Your task to perform on an android device: Clear all items from cart on bestbuy. Search for lg ultragear on bestbuy, select the first entry, and add it to the cart. Image 0: 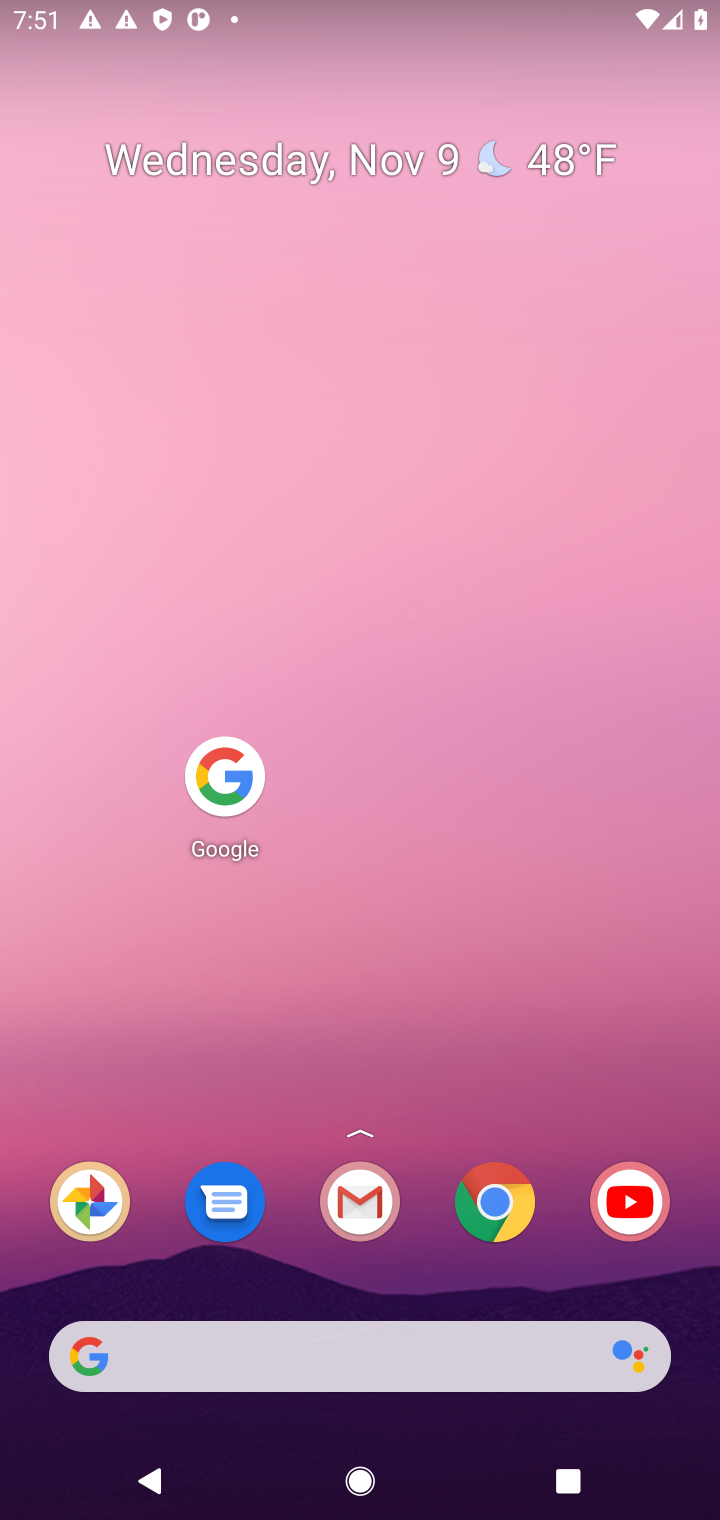
Step 0: press home button
Your task to perform on an android device: Clear all items from cart on bestbuy. Search for lg ultragear on bestbuy, select the first entry, and add it to the cart. Image 1: 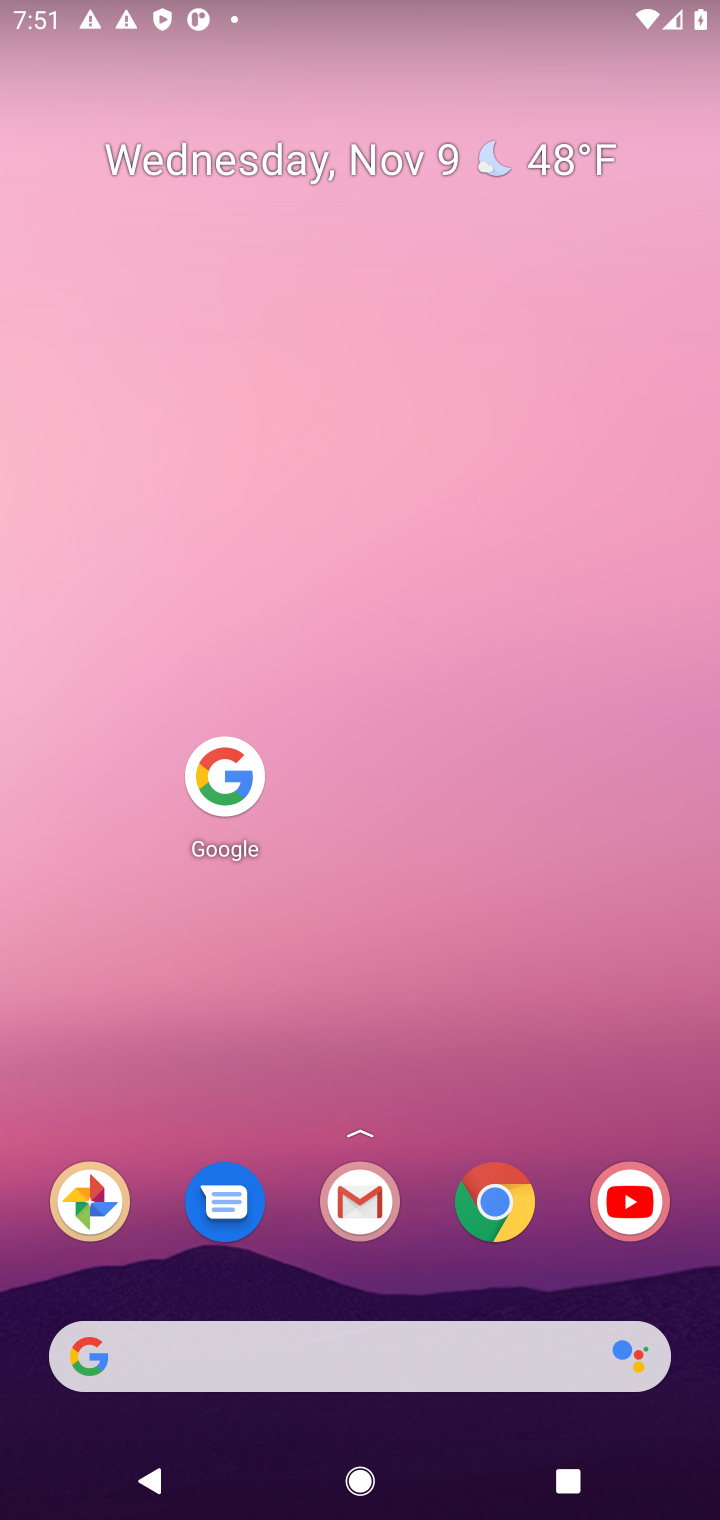
Step 1: click (233, 772)
Your task to perform on an android device: Clear all items from cart on bestbuy. Search for lg ultragear on bestbuy, select the first entry, and add it to the cart. Image 2: 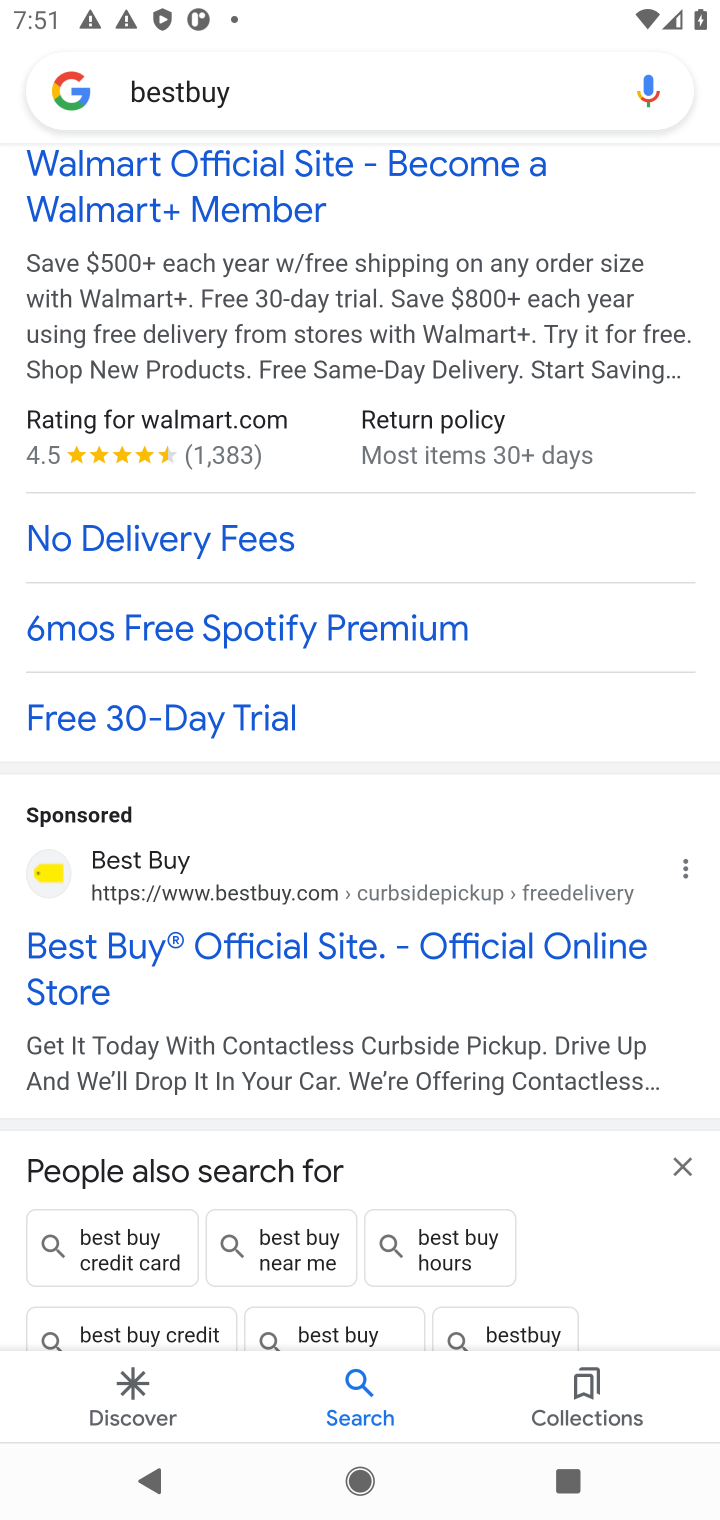
Step 2: click (236, 937)
Your task to perform on an android device: Clear all items from cart on bestbuy. Search for lg ultragear on bestbuy, select the first entry, and add it to the cart. Image 3: 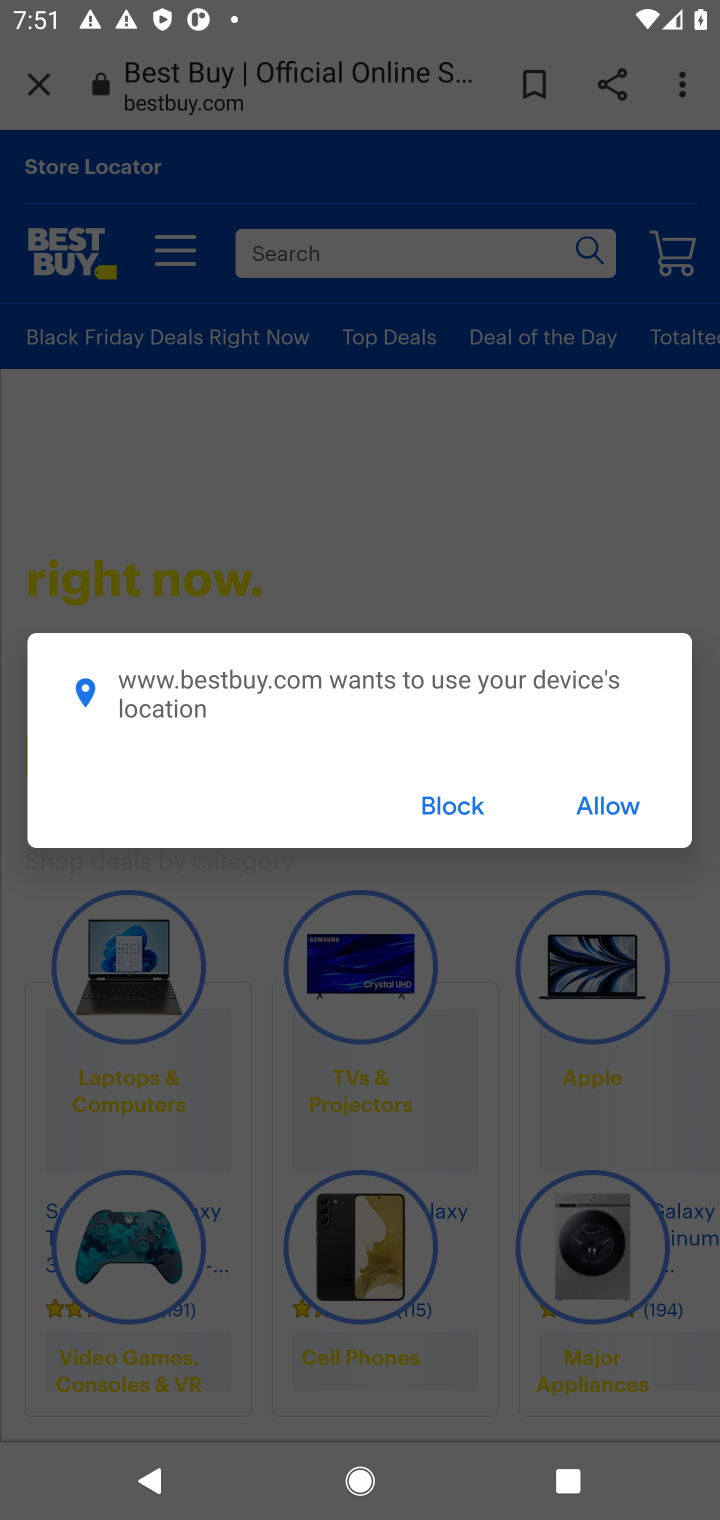
Step 3: click (607, 801)
Your task to perform on an android device: Clear all items from cart on bestbuy. Search for lg ultragear on bestbuy, select the first entry, and add it to the cart. Image 4: 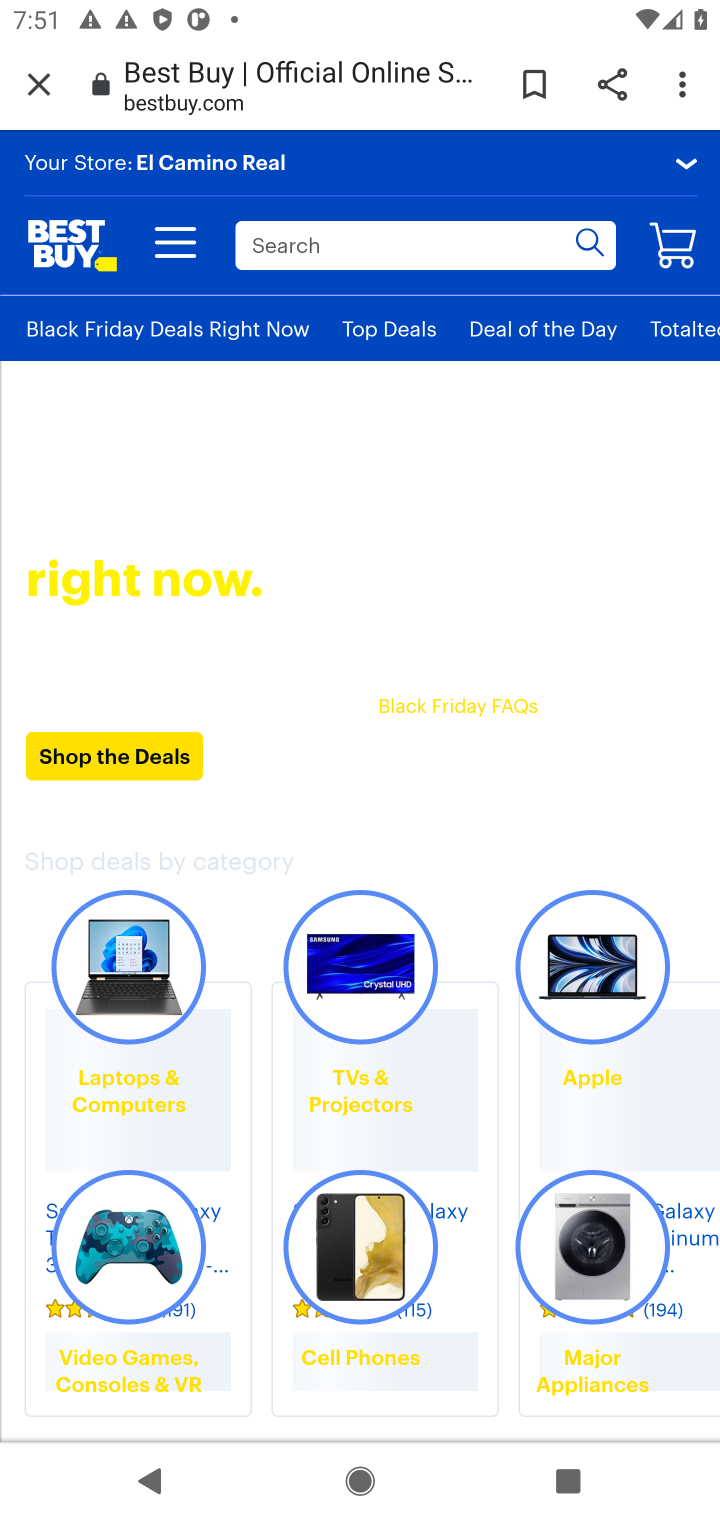
Step 4: click (436, 252)
Your task to perform on an android device: Clear all items from cart on bestbuy. Search for lg ultragear on bestbuy, select the first entry, and add it to the cart. Image 5: 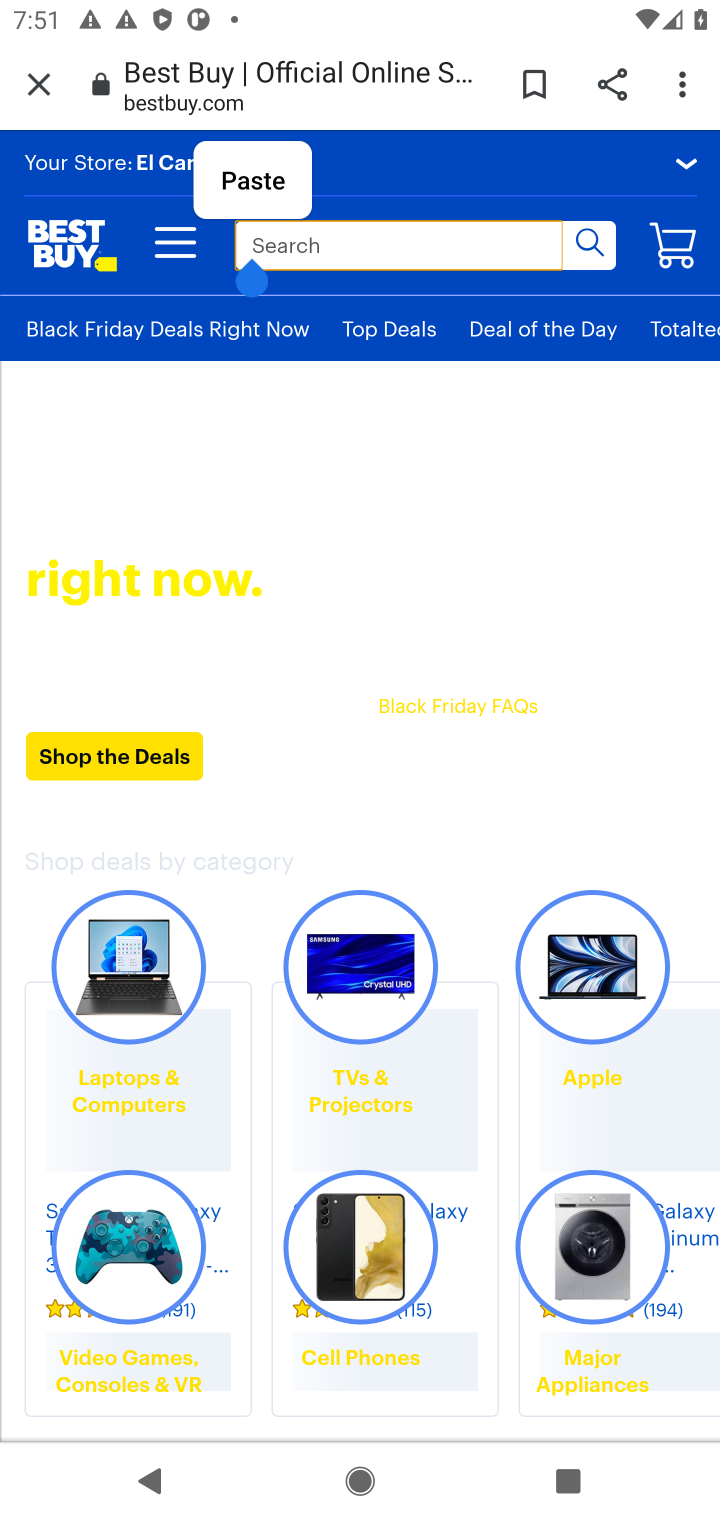
Step 5: click (421, 241)
Your task to perform on an android device: Clear all items from cart on bestbuy. Search for lg ultragear on bestbuy, select the first entry, and add it to the cart. Image 6: 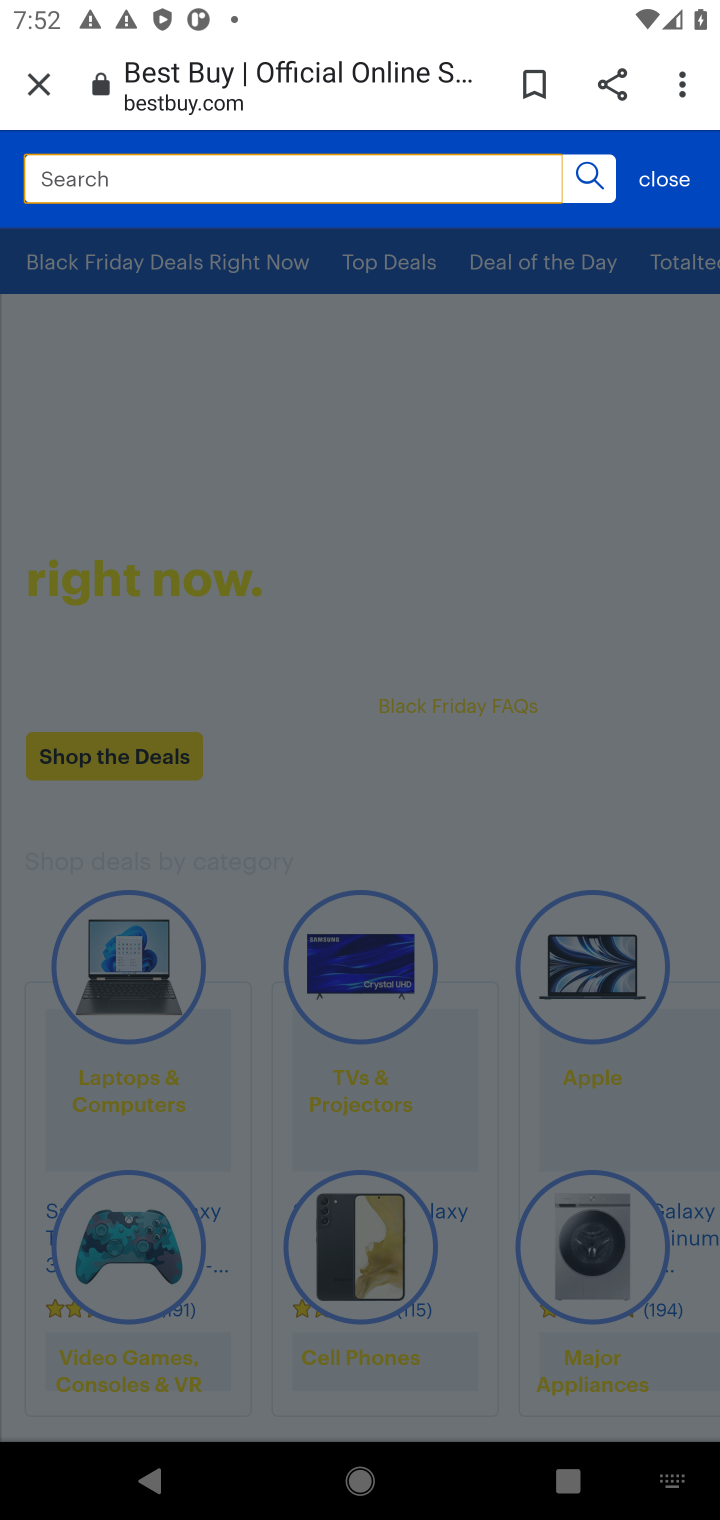
Step 6: press enter
Your task to perform on an android device: Clear all items from cart on bestbuy. Search for lg ultragear on bestbuy, select the first entry, and add it to the cart. Image 7: 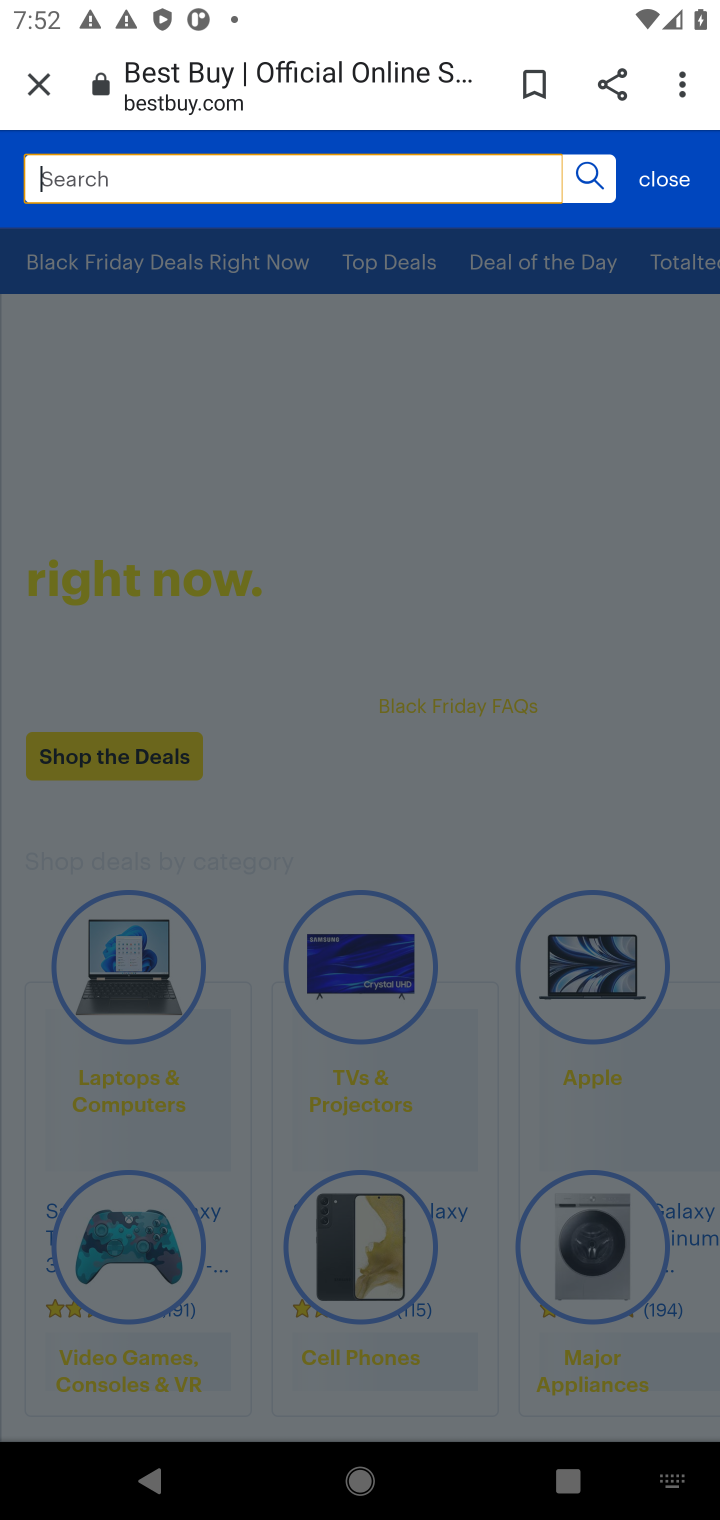
Step 7: type "lg ultragear "
Your task to perform on an android device: Clear all items from cart on bestbuy. Search for lg ultragear on bestbuy, select the first entry, and add it to the cart. Image 8: 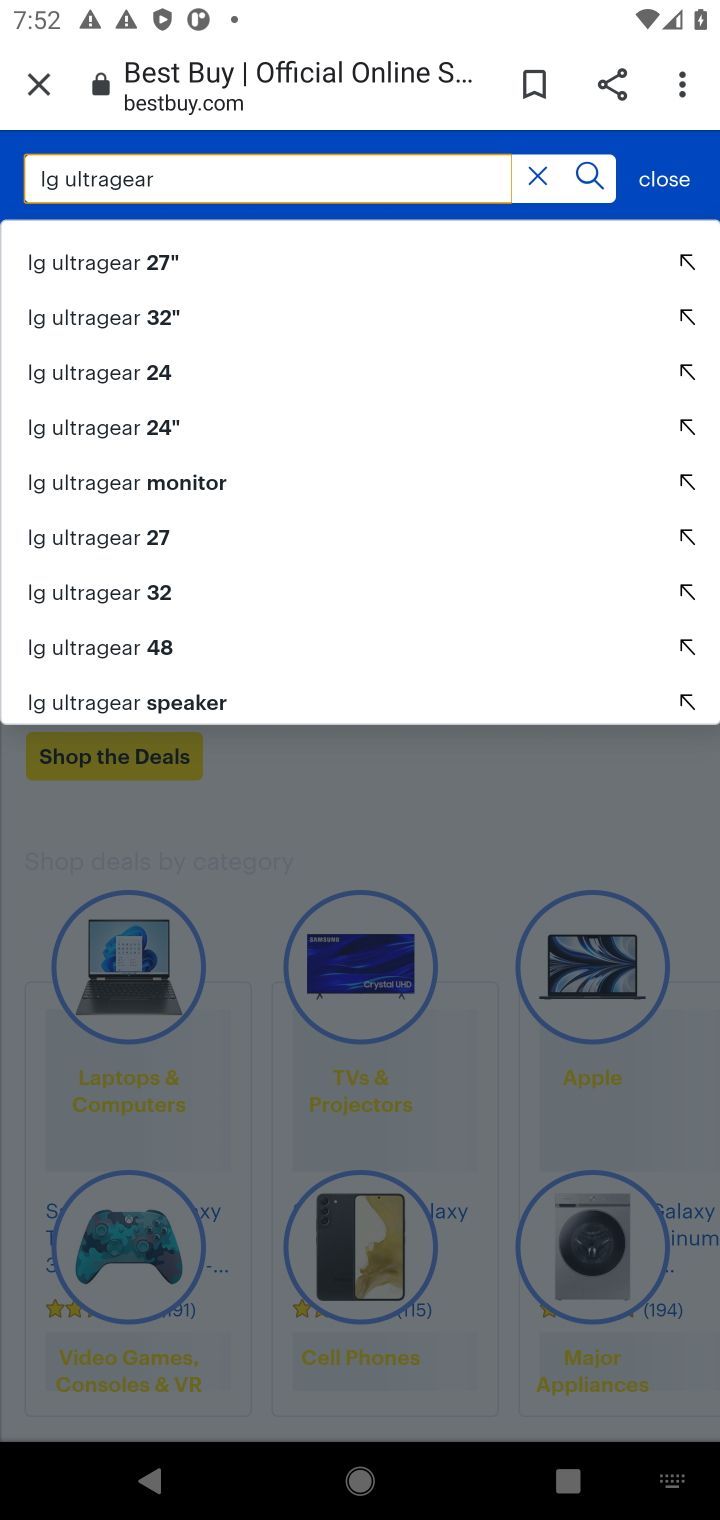
Step 8: click (590, 172)
Your task to perform on an android device: Clear all items from cart on bestbuy. Search for lg ultragear on bestbuy, select the first entry, and add it to the cart. Image 9: 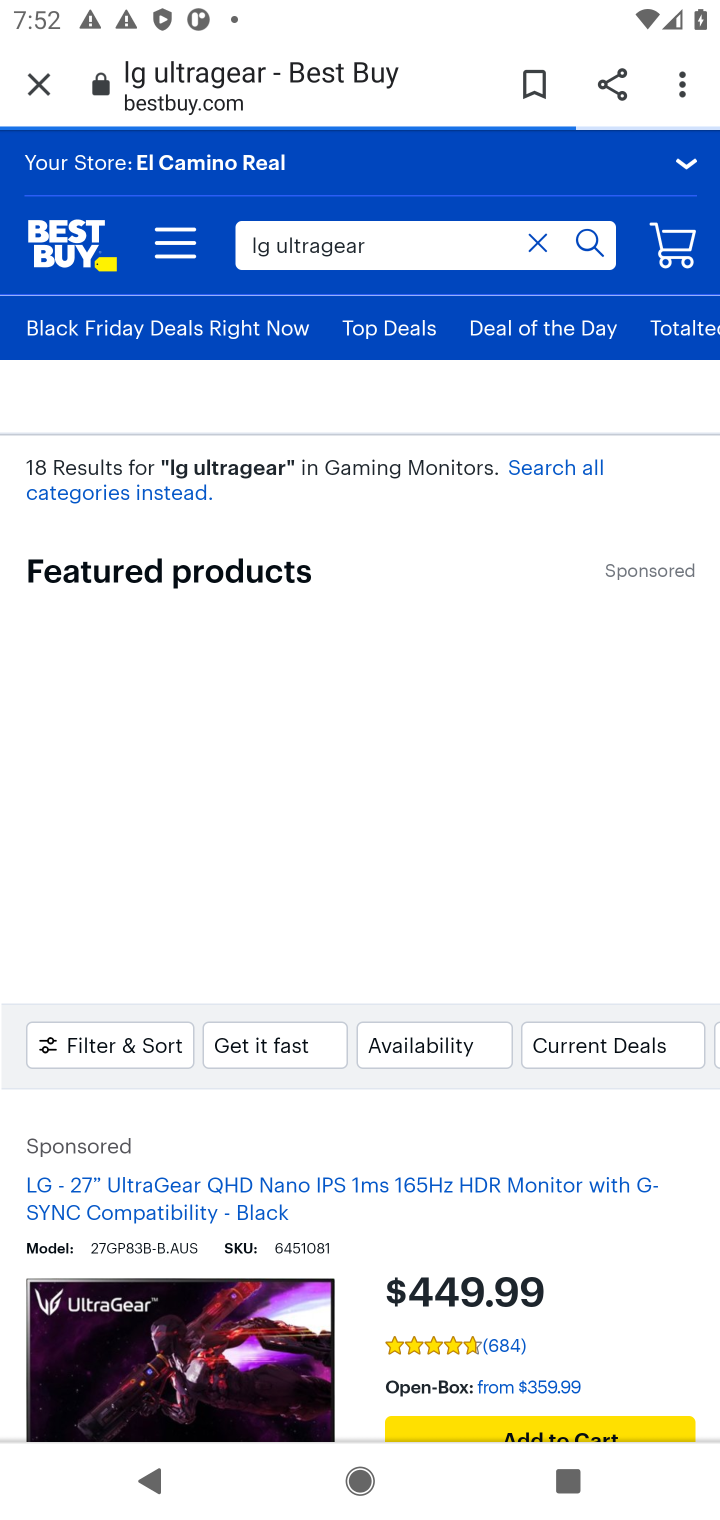
Step 9: drag from (371, 1212) to (437, 968)
Your task to perform on an android device: Clear all items from cart on bestbuy. Search for lg ultragear on bestbuy, select the first entry, and add it to the cart. Image 10: 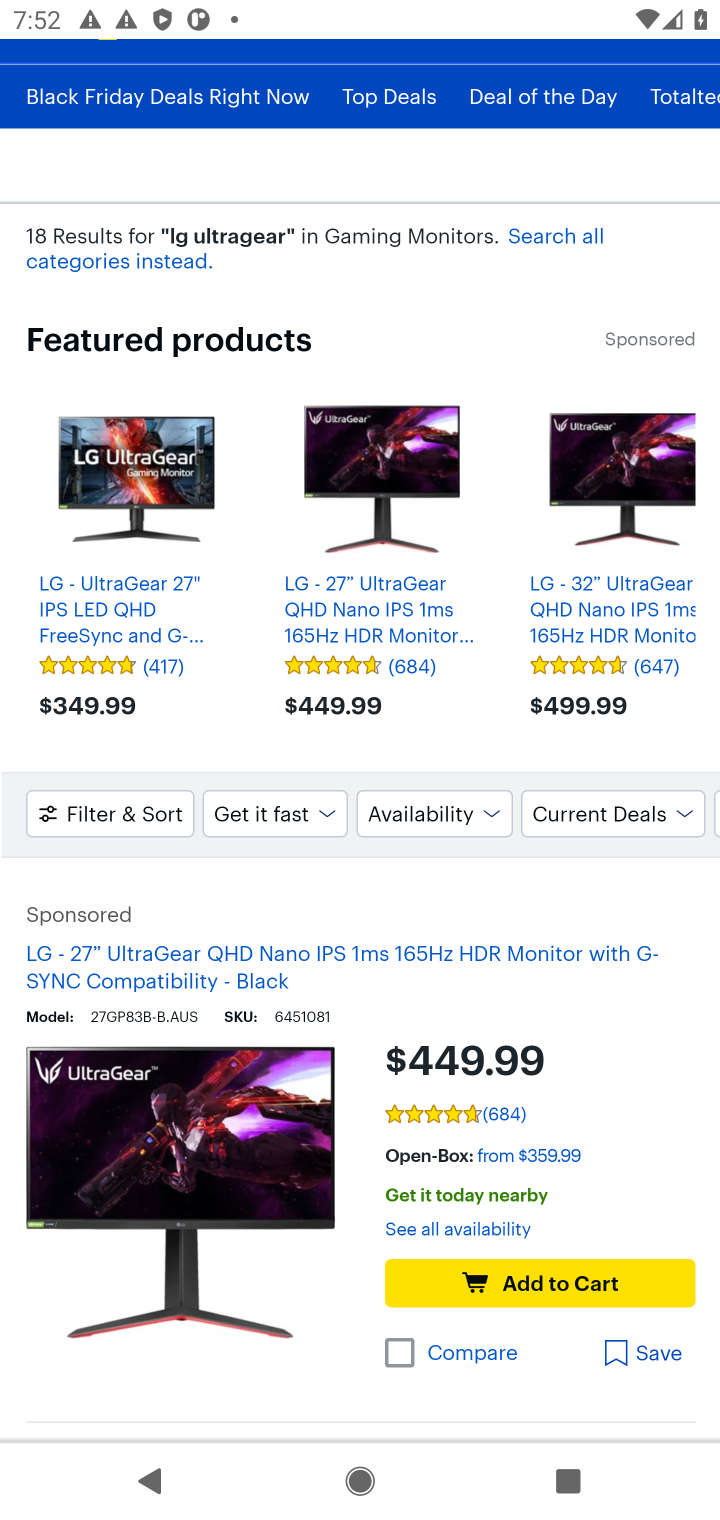
Step 10: click (515, 1168)
Your task to perform on an android device: Clear all items from cart on bestbuy. Search for lg ultragear on bestbuy, select the first entry, and add it to the cart. Image 11: 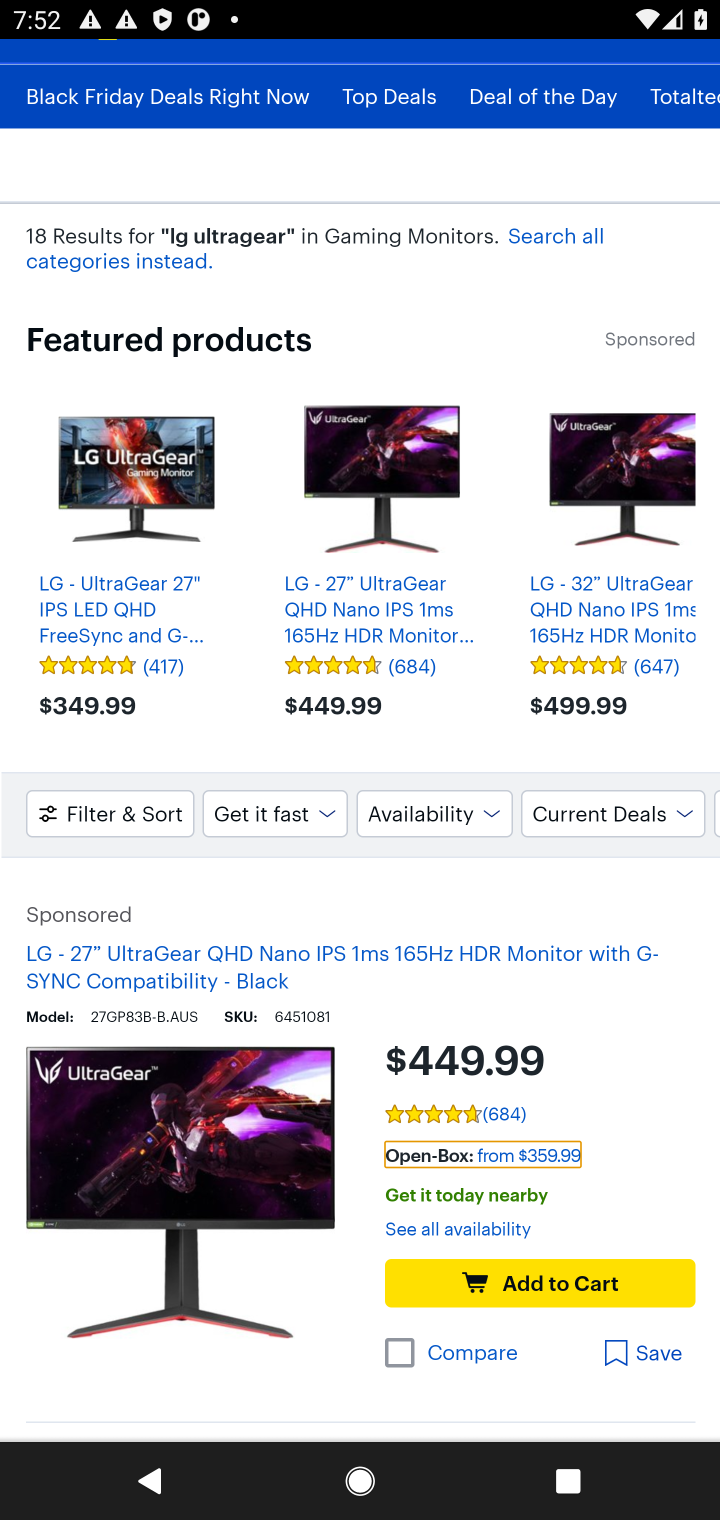
Step 11: click (594, 1095)
Your task to perform on an android device: Clear all items from cart on bestbuy. Search for lg ultragear on bestbuy, select the first entry, and add it to the cart. Image 12: 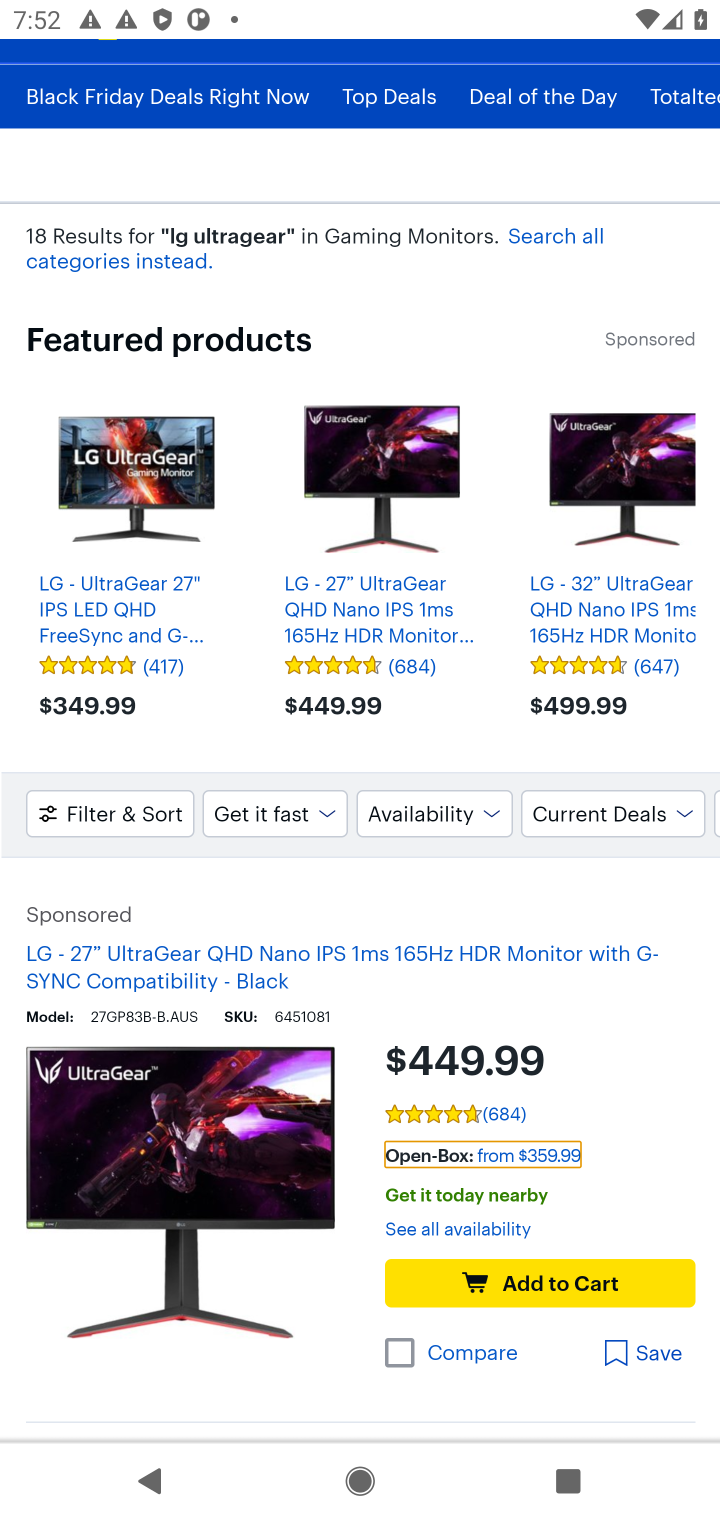
Step 12: click (512, 1070)
Your task to perform on an android device: Clear all items from cart on bestbuy. Search for lg ultragear on bestbuy, select the first entry, and add it to the cart. Image 13: 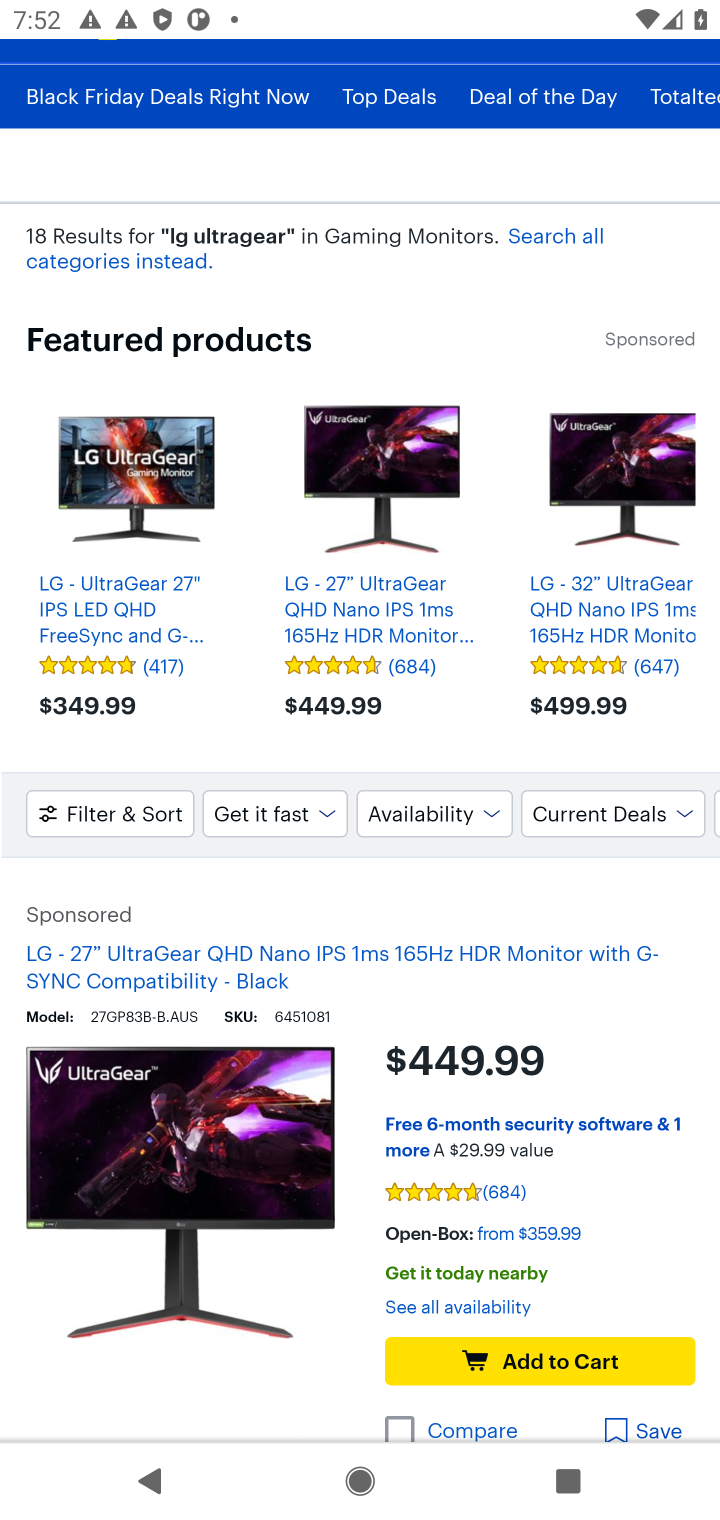
Step 13: drag from (373, 1178) to (524, 818)
Your task to perform on an android device: Clear all items from cart on bestbuy. Search for lg ultragear on bestbuy, select the first entry, and add it to the cart. Image 14: 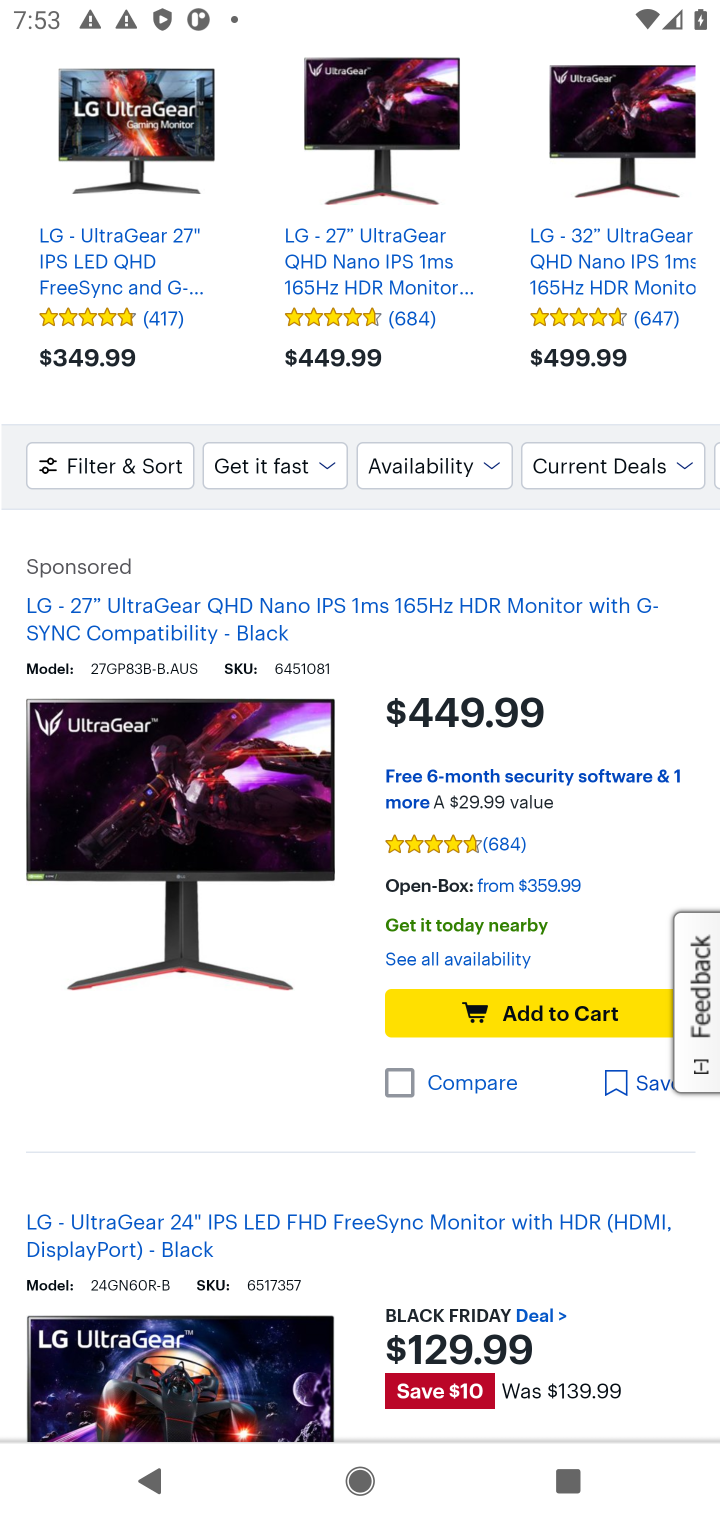
Step 14: click (558, 1009)
Your task to perform on an android device: Clear all items from cart on bestbuy. Search for lg ultragear on bestbuy, select the first entry, and add it to the cart. Image 15: 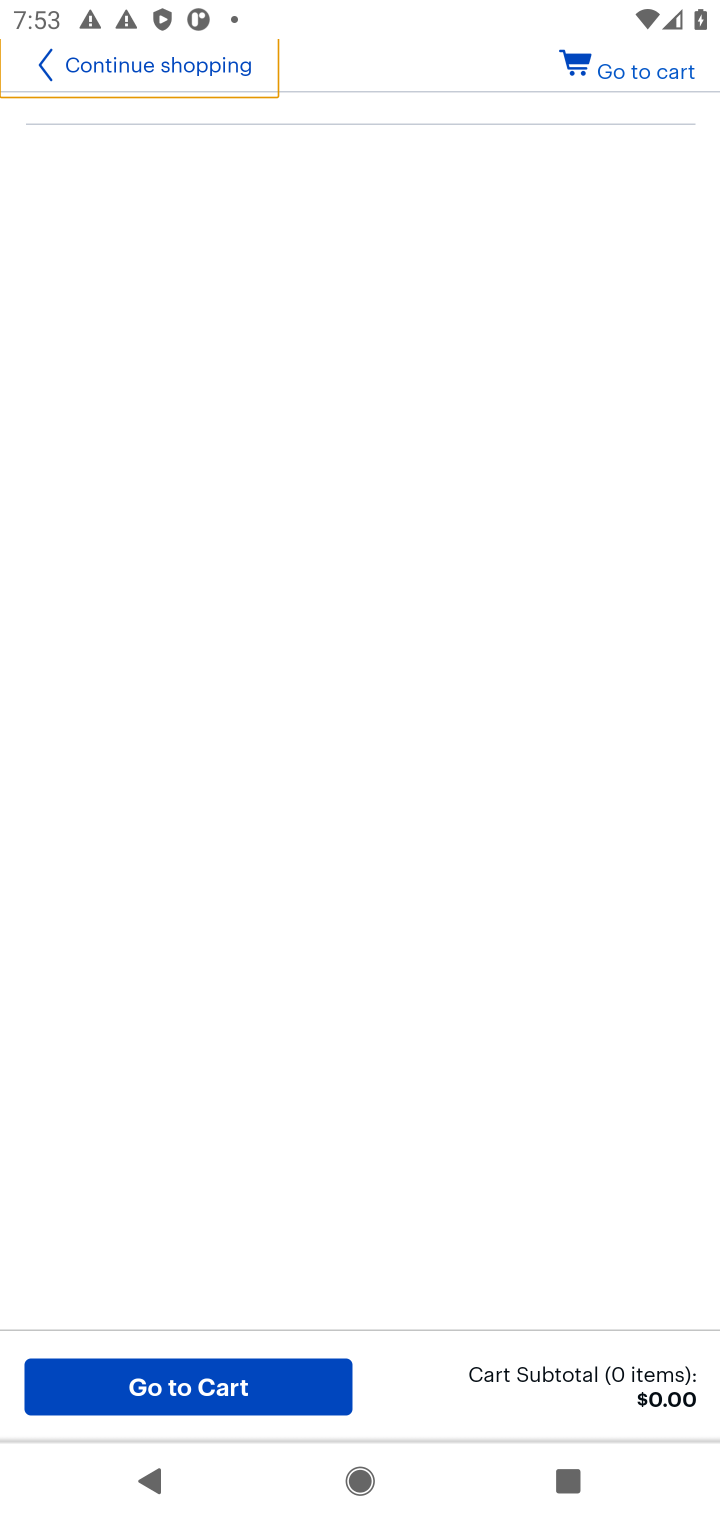
Step 15: drag from (541, 511) to (470, 874)
Your task to perform on an android device: Clear all items from cart on bestbuy. Search for lg ultragear on bestbuy, select the first entry, and add it to the cart. Image 16: 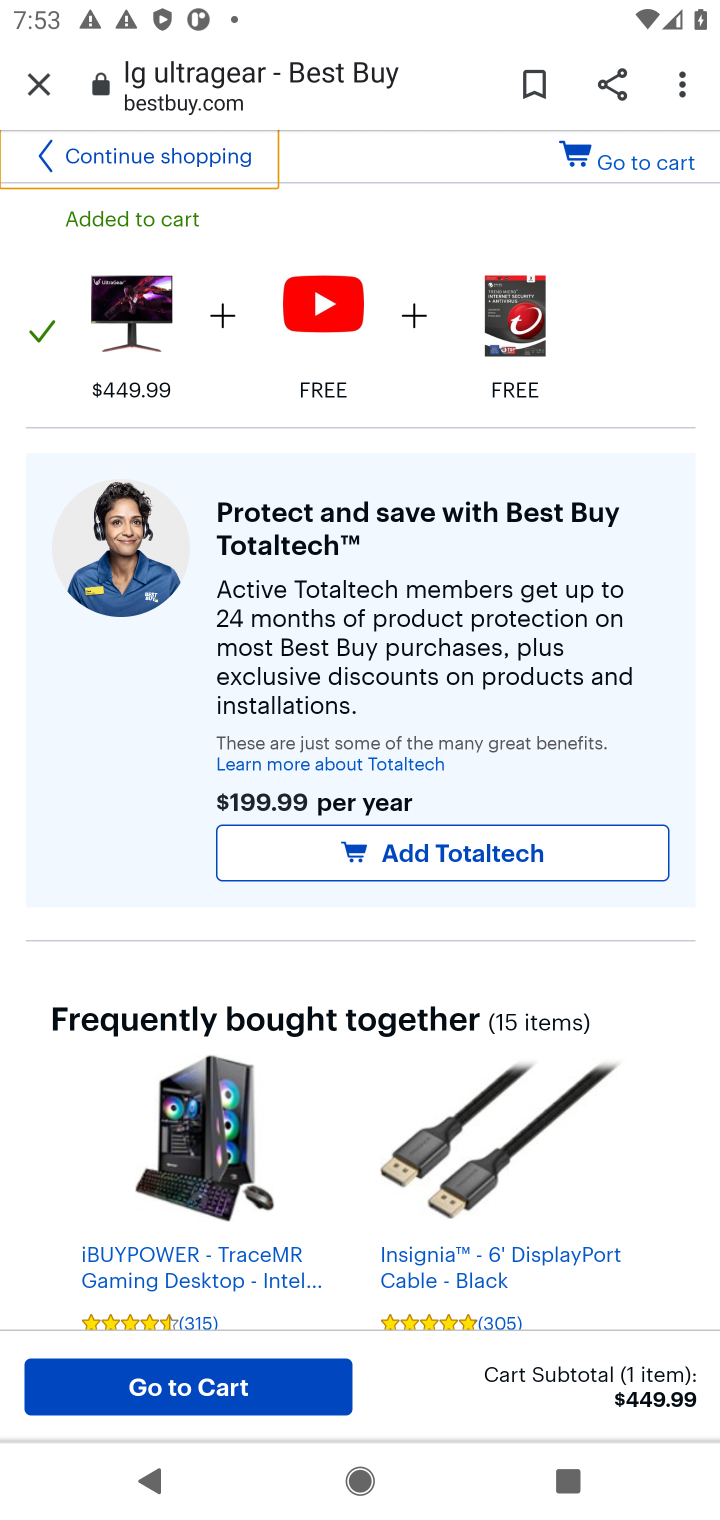
Step 16: click (636, 159)
Your task to perform on an android device: Clear all items from cart on bestbuy. Search for lg ultragear on bestbuy, select the first entry, and add it to the cart. Image 17: 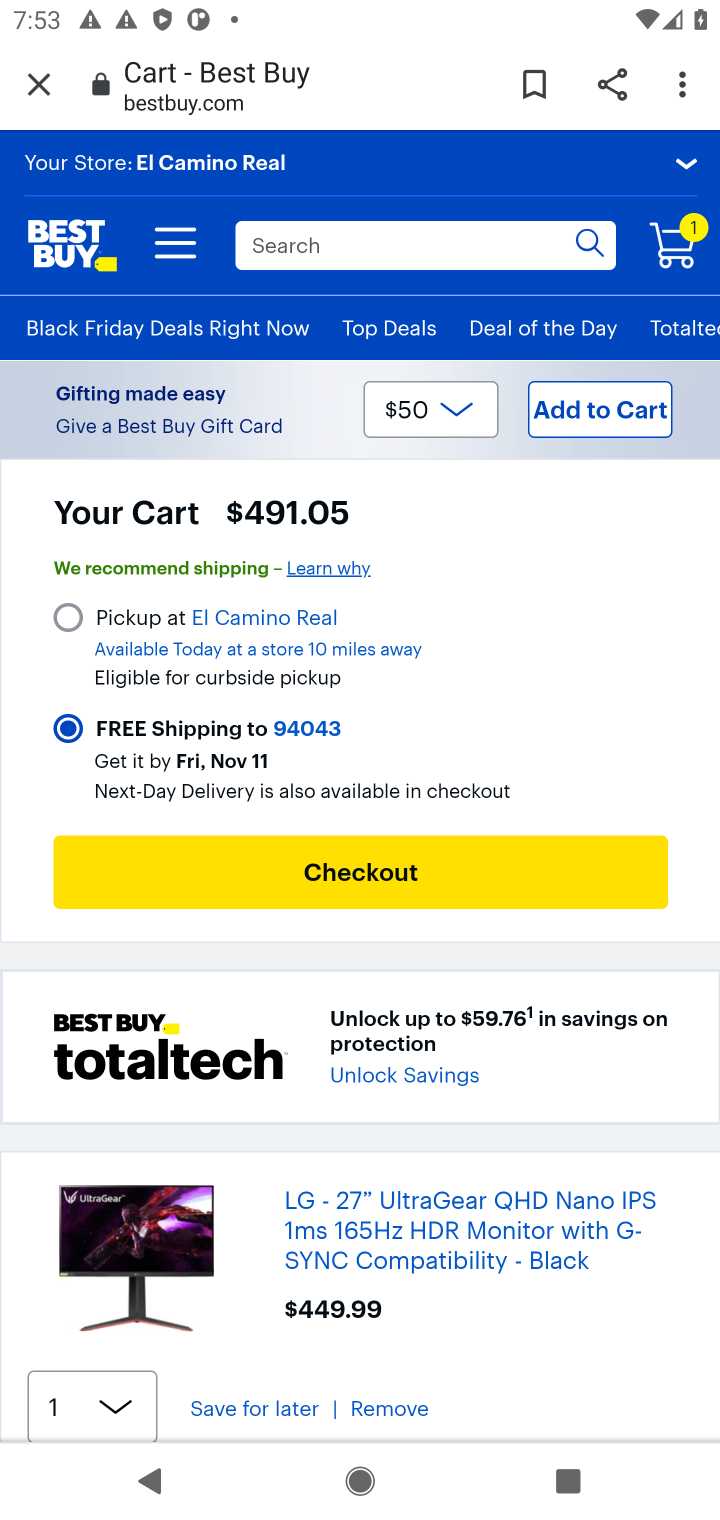
Step 17: task complete